Your task to perform on an android device: What's the weather going to be tomorrow? Image 0: 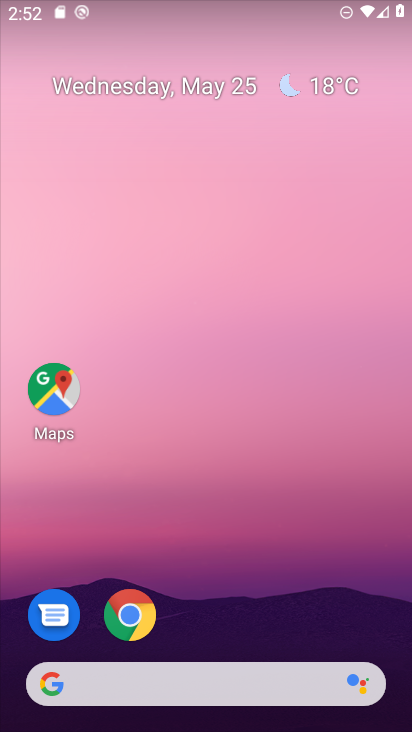
Step 0: click (187, 686)
Your task to perform on an android device: What's the weather going to be tomorrow? Image 1: 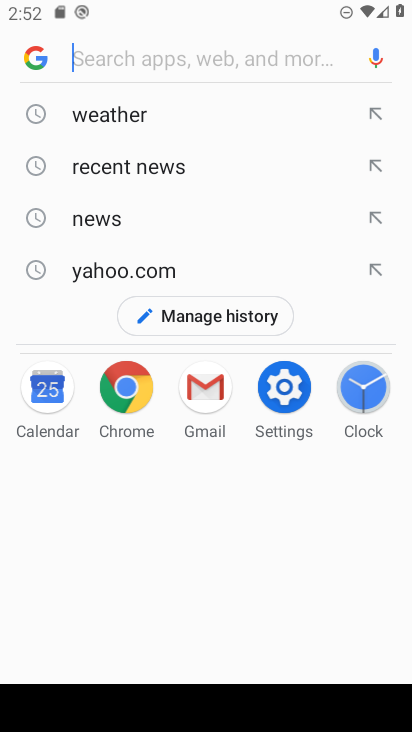
Step 1: click (79, 111)
Your task to perform on an android device: What's the weather going to be tomorrow? Image 2: 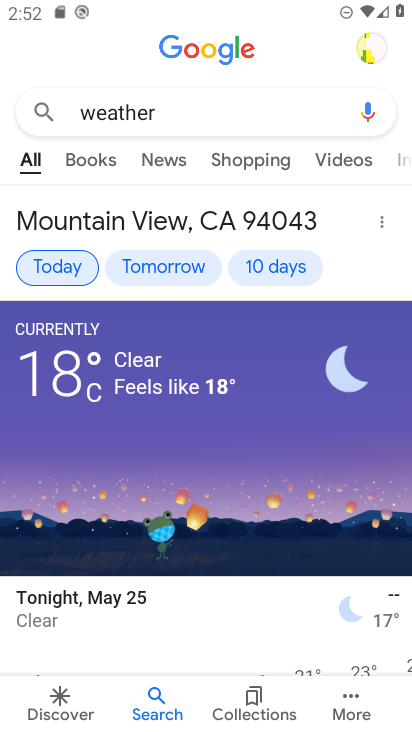
Step 2: click (70, 268)
Your task to perform on an android device: What's the weather going to be tomorrow? Image 3: 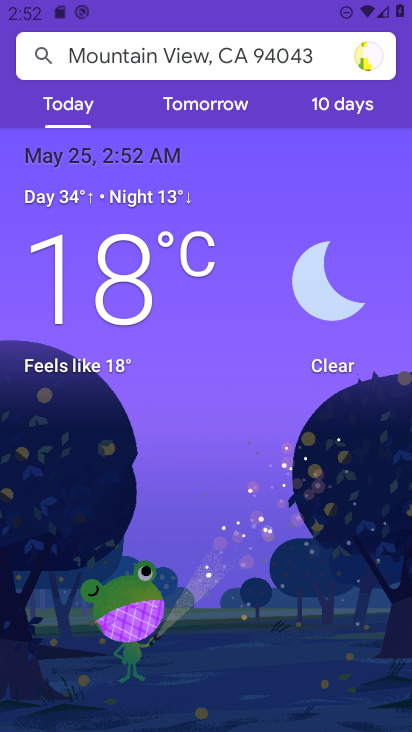
Step 3: click (231, 112)
Your task to perform on an android device: What's the weather going to be tomorrow? Image 4: 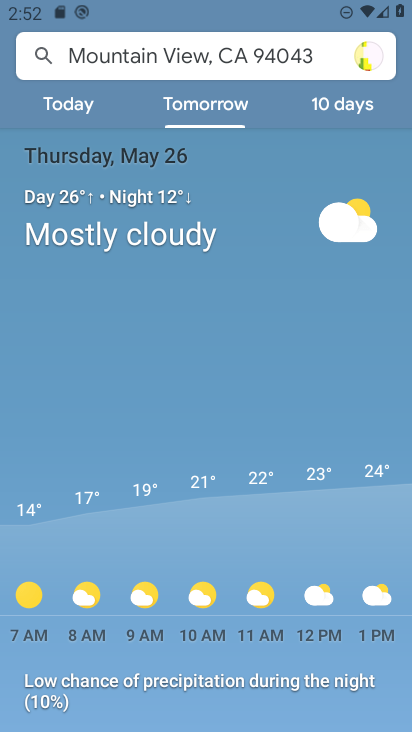
Step 4: task complete